Your task to perform on an android device: uninstall "Google Chat" Image 0: 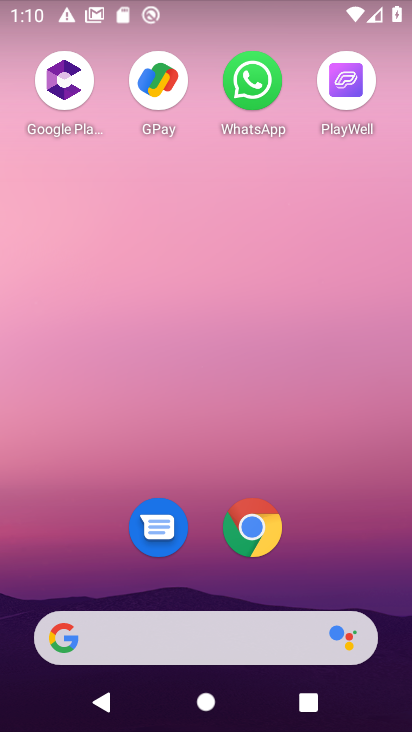
Step 0: drag from (245, 730) to (217, 107)
Your task to perform on an android device: uninstall "Google Chat" Image 1: 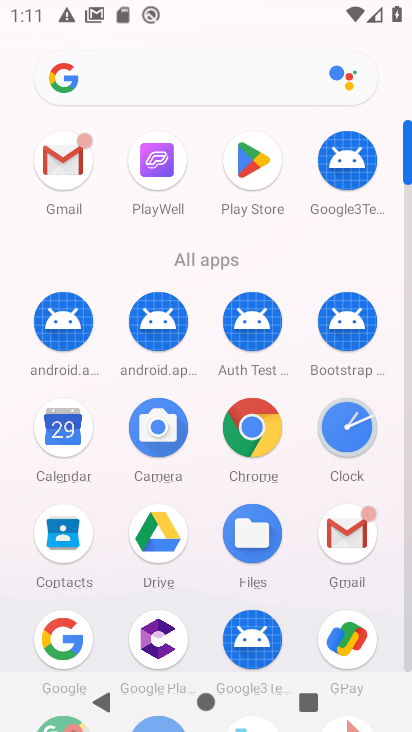
Step 1: click (252, 171)
Your task to perform on an android device: uninstall "Google Chat" Image 2: 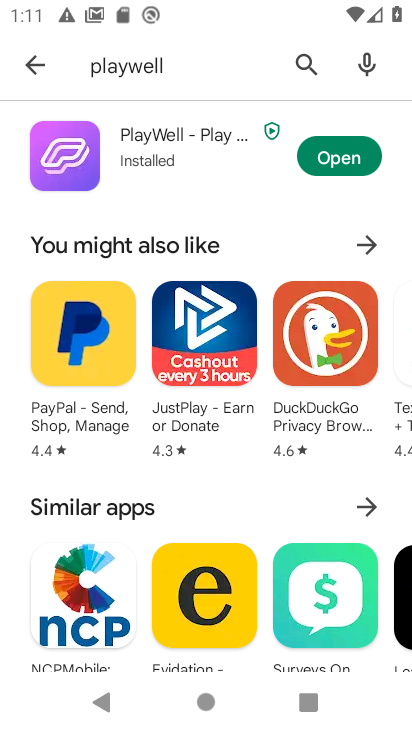
Step 2: click (309, 60)
Your task to perform on an android device: uninstall "Google Chat" Image 3: 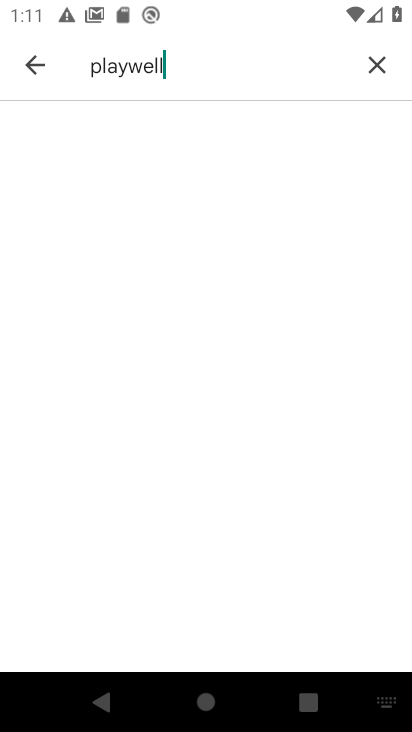
Step 3: click (379, 63)
Your task to perform on an android device: uninstall "Google Chat" Image 4: 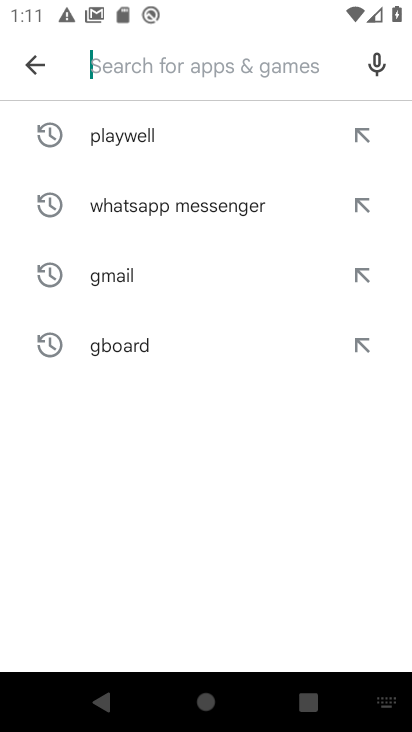
Step 4: type "Google Chat"
Your task to perform on an android device: uninstall "Google Chat" Image 5: 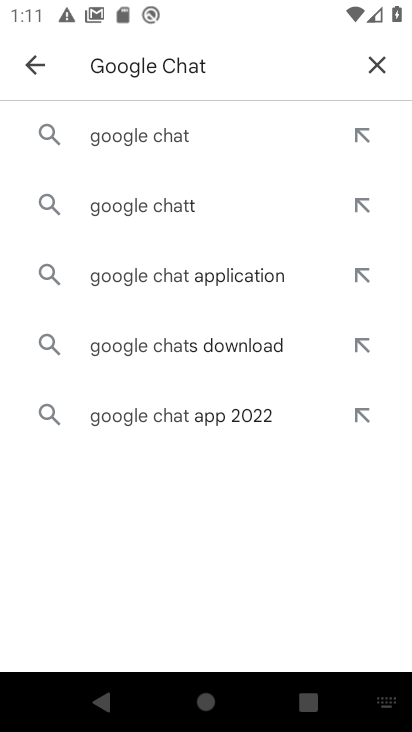
Step 5: click (153, 142)
Your task to perform on an android device: uninstall "Google Chat" Image 6: 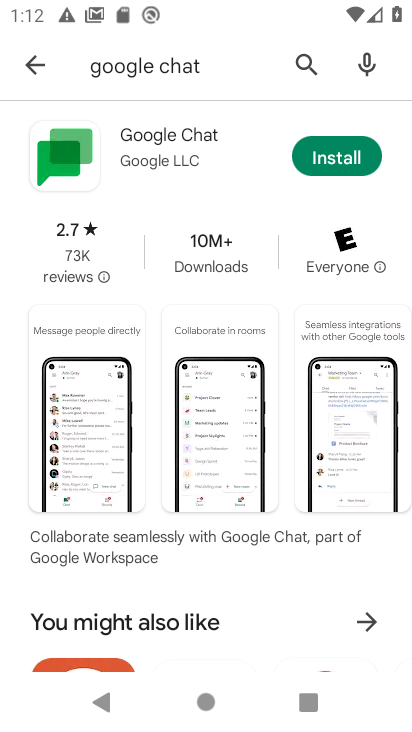
Step 6: task complete